Your task to perform on an android device: open chrome privacy settings Image 0: 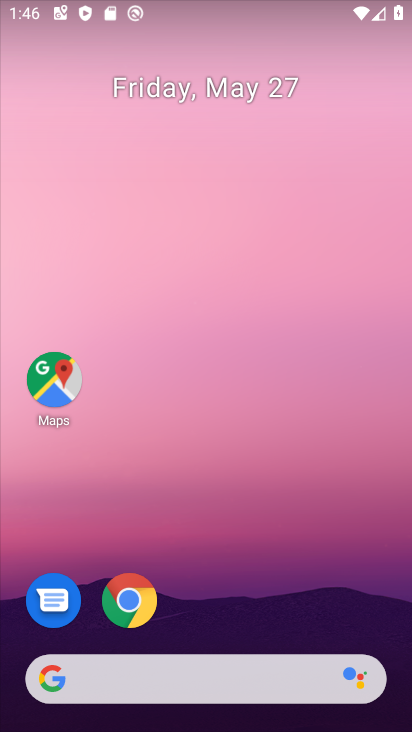
Step 0: click (130, 605)
Your task to perform on an android device: open chrome privacy settings Image 1: 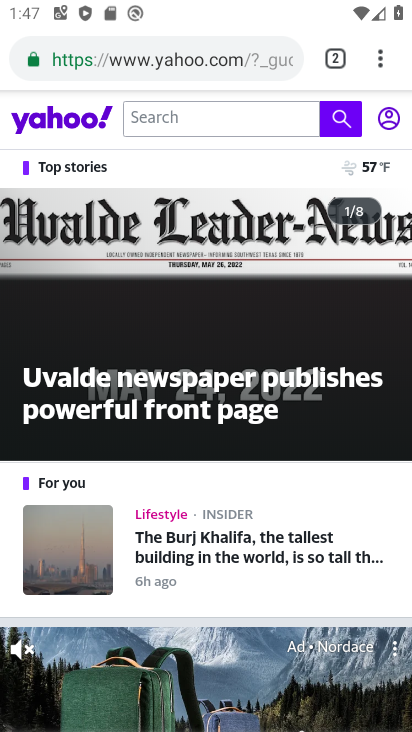
Step 1: click (381, 64)
Your task to perform on an android device: open chrome privacy settings Image 2: 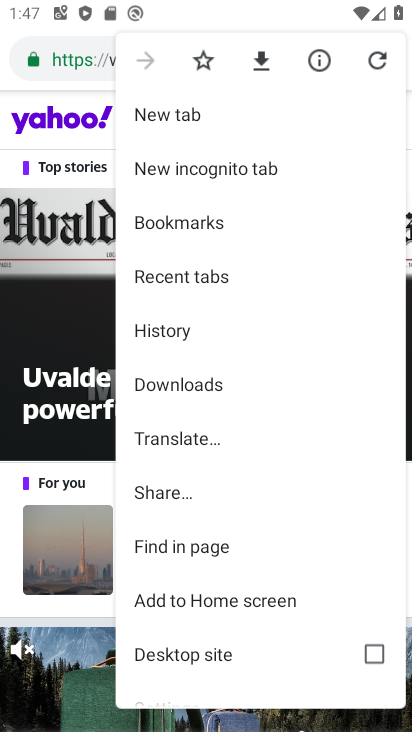
Step 2: drag from (233, 311) to (234, 158)
Your task to perform on an android device: open chrome privacy settings Image 3: 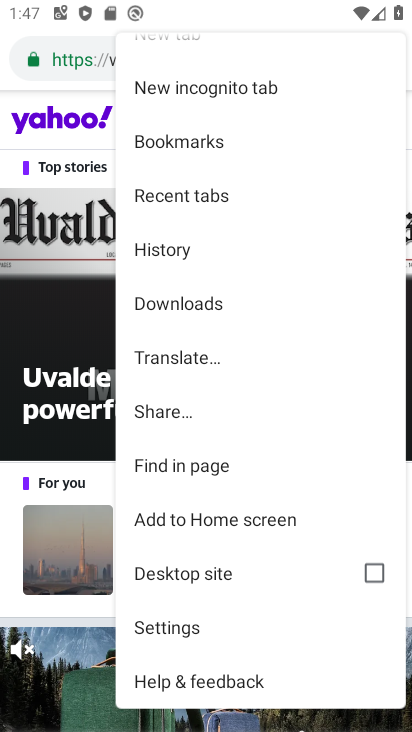
Step 3: click (179, 630)
Your task to perform on an android device: open chrome privacy settings Image 4: 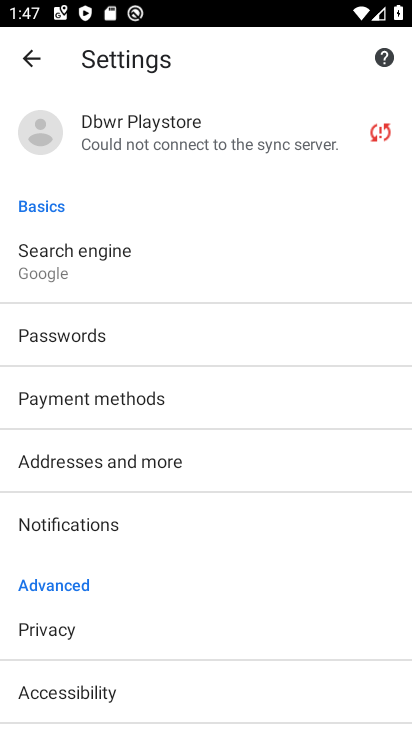
Step 4: click (42, 630)
Your task to perform on an android device: open chrome privacy settings Image 5: 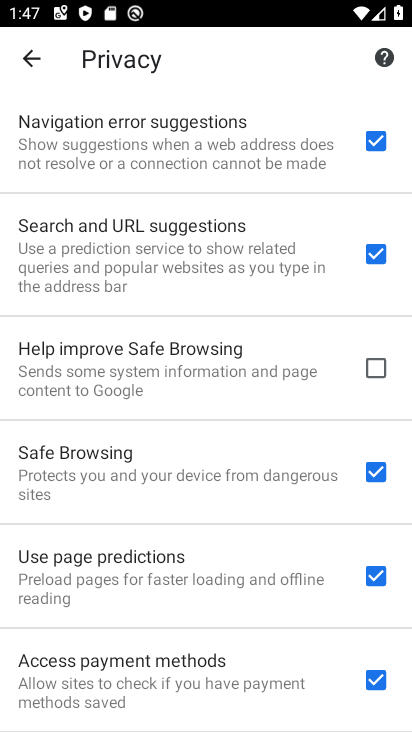
Step 5: task complete